Your task to perform on an android device: change the clock display to show seconds Image 0: 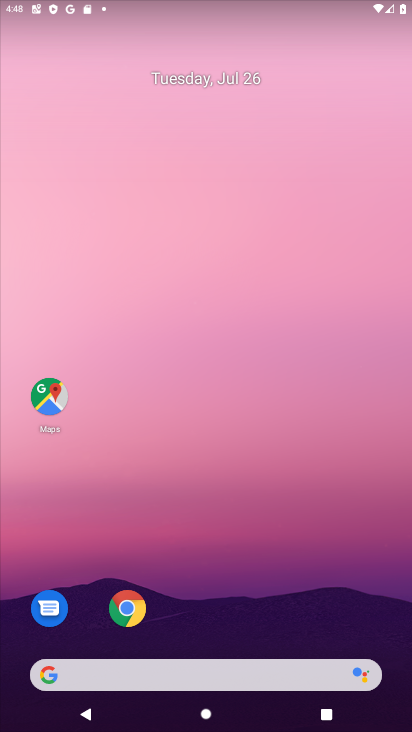
Step 0: drag from (185, 661) to (313, 89)
Your task to perform on an android device: change the clock display to show seconds Image 1: 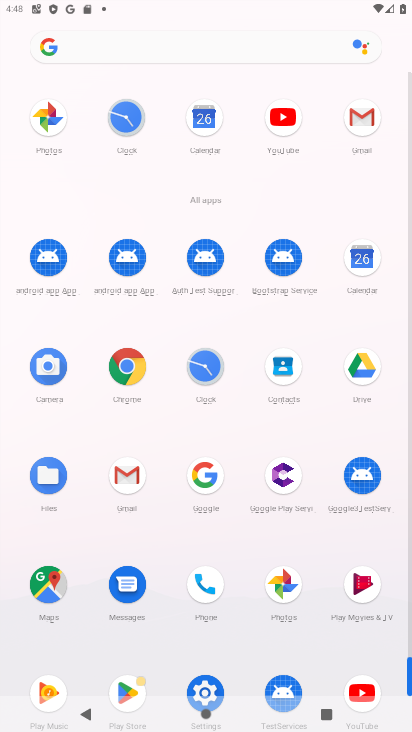
Step 1: click (127, 123)
Your task to perform on an android device: change the clock display to show seconds Image 2: 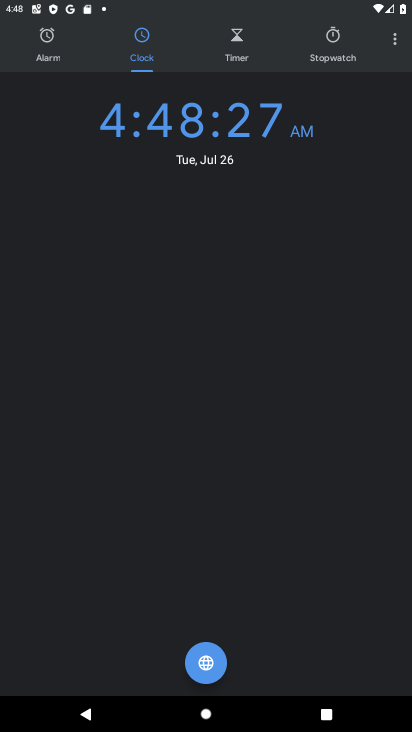
Step 2: click (392, 45)
Your task to perform on an android device: change the clock display to show seconds Image 3: 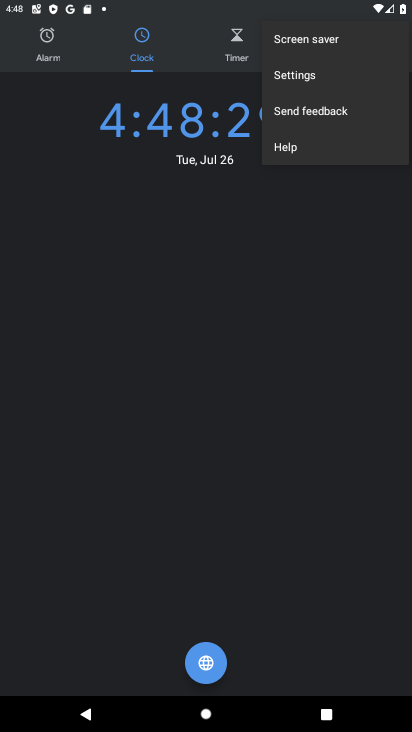
Step 3: click (273, 71)
Your task to perform on an android device: change the clock display to show seconds Image 4: 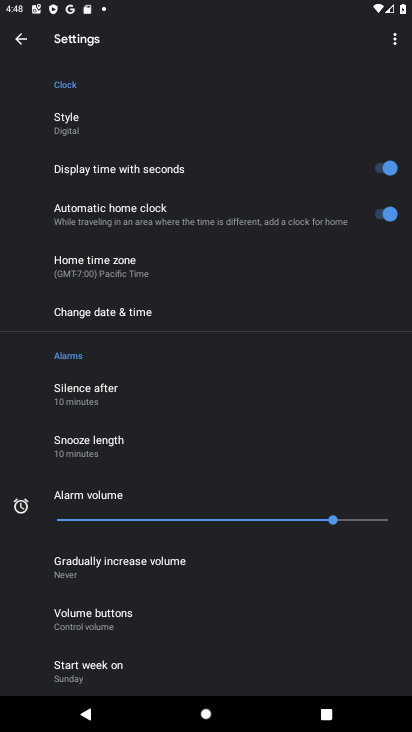
Step 4: task complete